Your task to perform on an android device: set the timer Image 0: 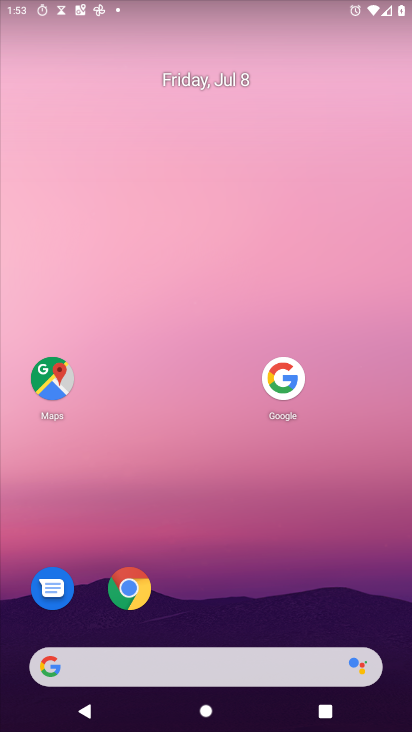
Step 0: drag from (171, 669) to (236, 52)
Your task to perform on an android device: set the timer Image 1: 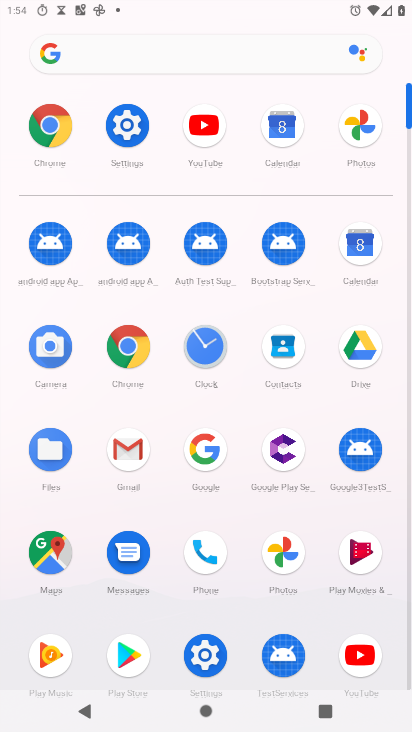
Step 1: click (209, 354)
Your task to perform on an android device: set the timer Image 2: 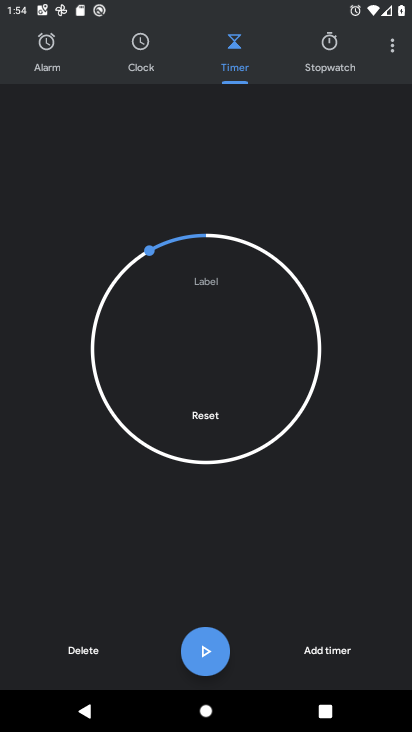
Step 2: click (82, 652)
Your task to perform on an android device: set the timer Image 3: 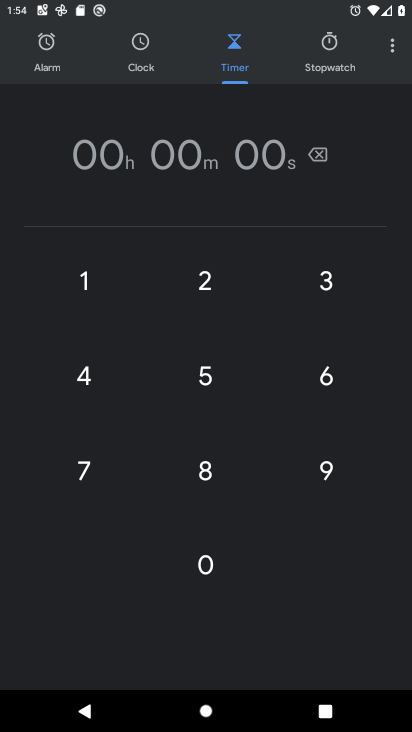
Step 3: click (214, 374)
Your task to perform on an android device: set the timer Image 4: 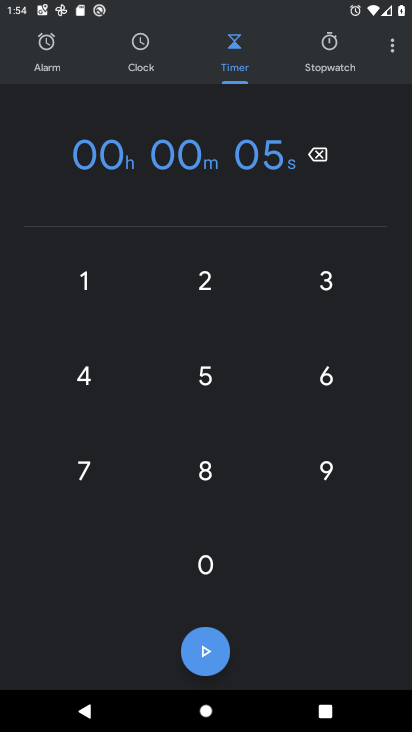
Step 4: click (202, 286)
Your task to perform on an android device: set the timer Image 5: 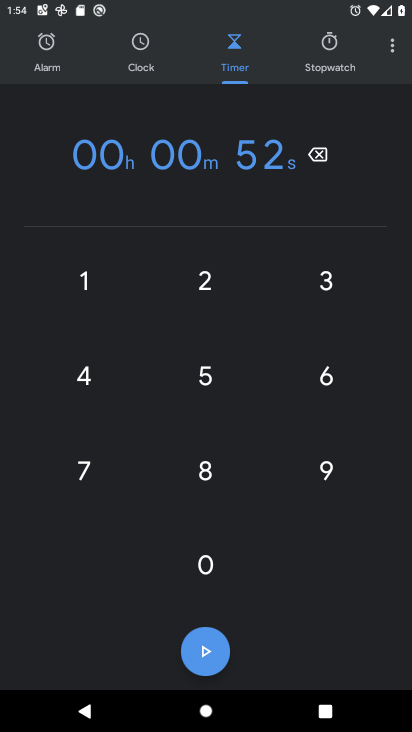
Step 5: click (210, 662)
Your task to perform on an android device: set the timer Image 6: 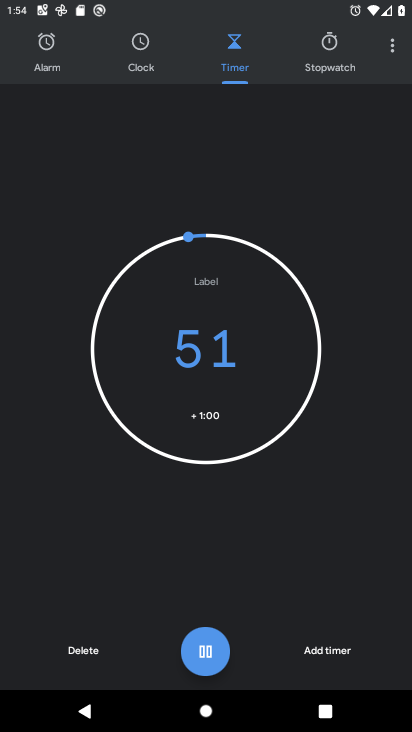
Step 6: click (208, 659)
Your task to perform on an android device: set the timer Image 7: 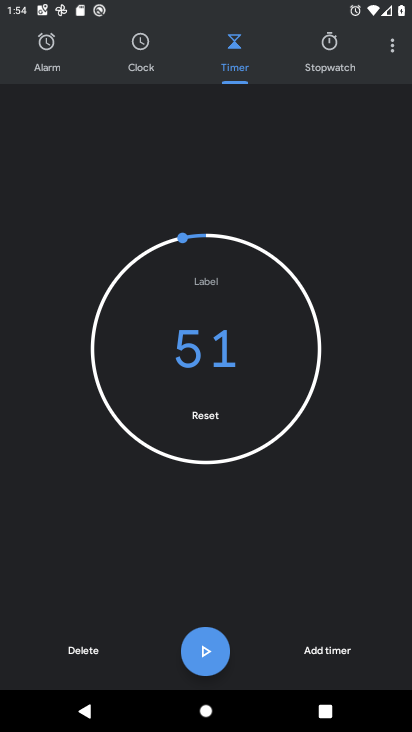
Step 7: task complete